Your task to perform on an android device: Open the phone app and click the voicemail tab. Image 0: 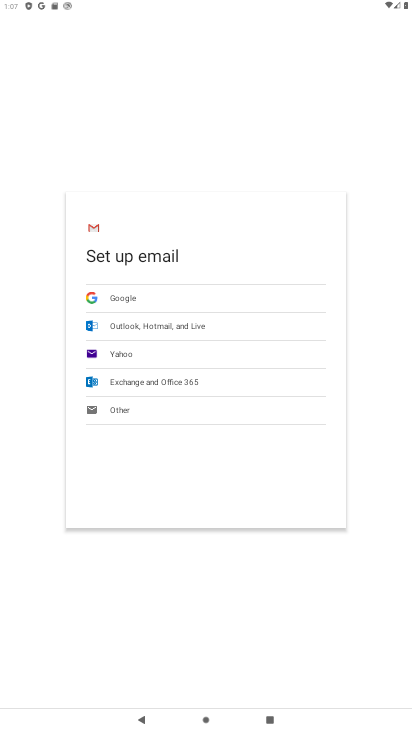
Step 0: drag from (205, 665) to (208, 495)
Your task to perform on an android device: Open the phone app and click the voicemail tab. Image 1: 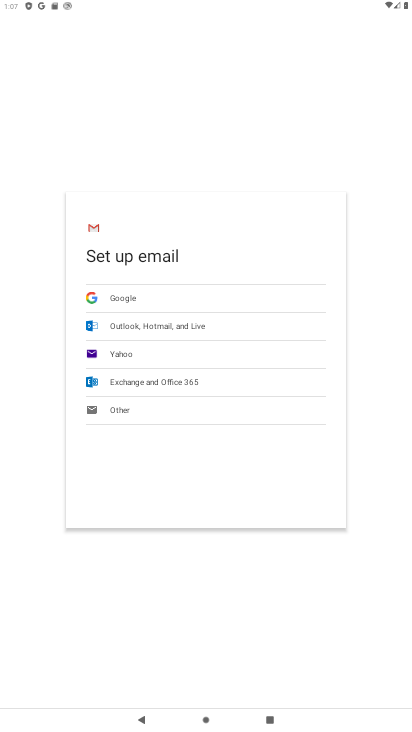
Step 1: press home button
Your task to perform on an android device: Open the phone app and click the voicemail tab. Image 2: 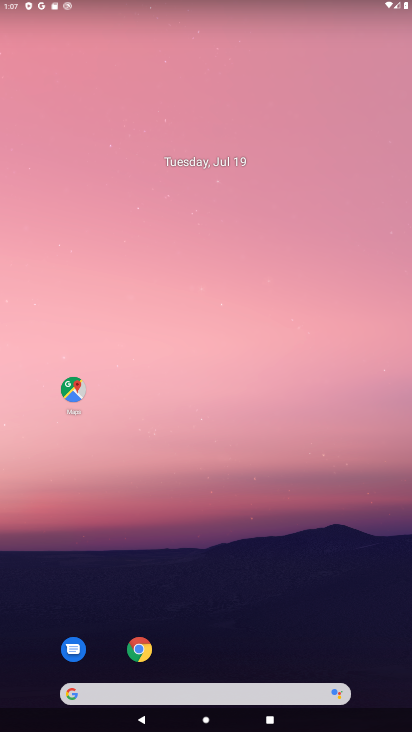
Step 2: drag from (218, 668) to (159, 4)
Your task to perform on an android device: Open the phone app and click the voicemail tab. Image 3: 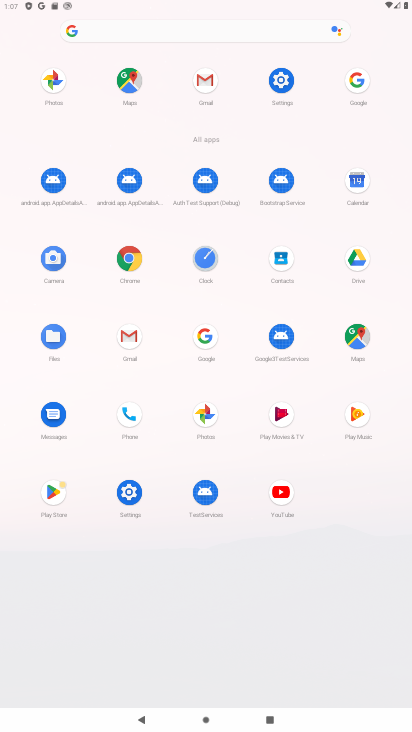
Step 3: click (136, 421)
Your task to perform on an android device: Open the phone app and click the voicemail tab. Image 4: 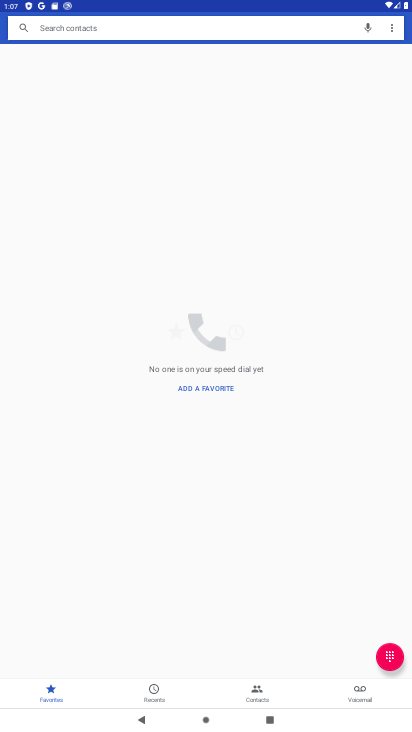
Step 4: click (344, 688)
Your task to perform on an android device: Open the phone app and click the voicemail tab. Image 5: 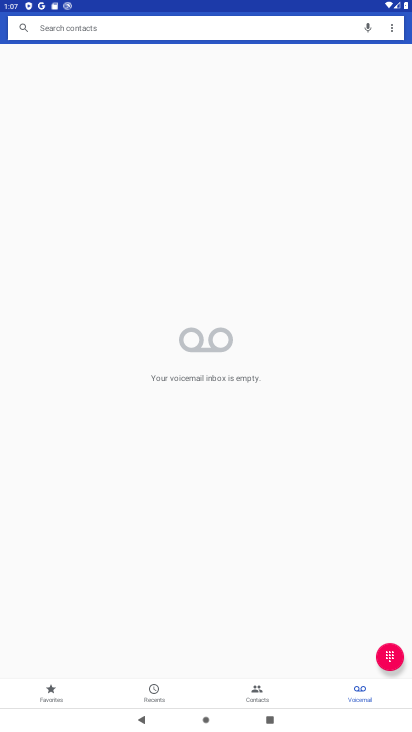
Step 5: task complete